Your task to perform on an android device: delete browsing data in the chrome app Image 0: 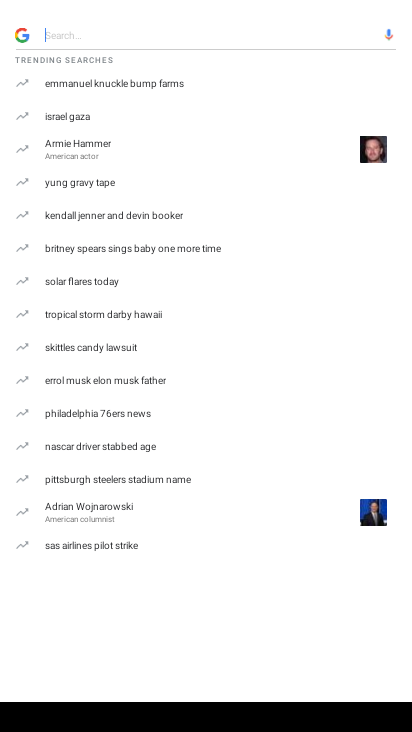
Step 0: press home button
Your task to perform on an android device: delete browsing data in the chrome app Image 1: 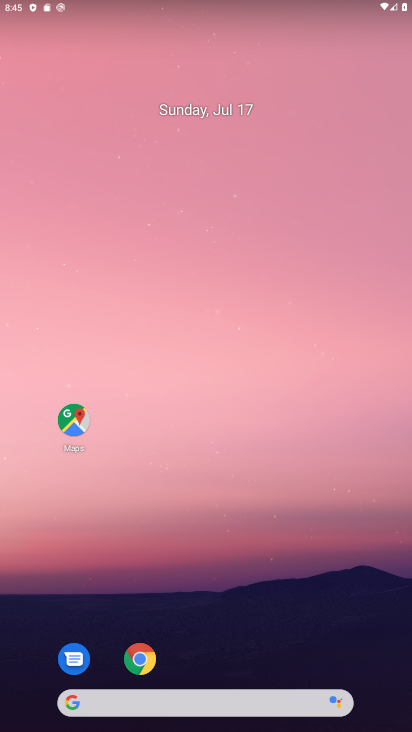
Step 1: click (146, 657)
Your task to perform on an android device: delete browsing data in the chrome app Image 2: 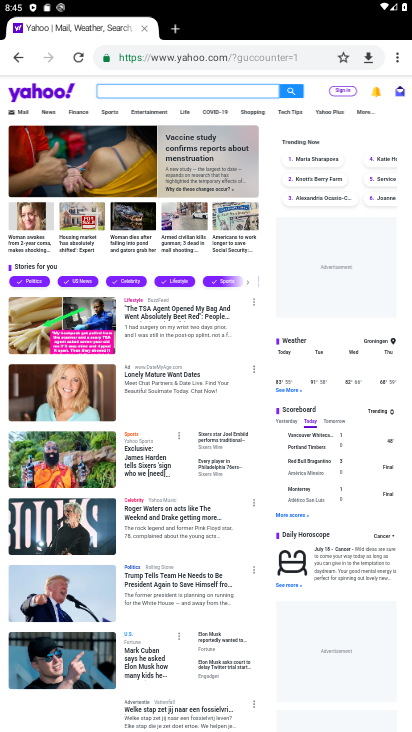
Step 2: click (397, 63)
Your task to perform on an android device: delete browsing data in the chrome app Image 3: 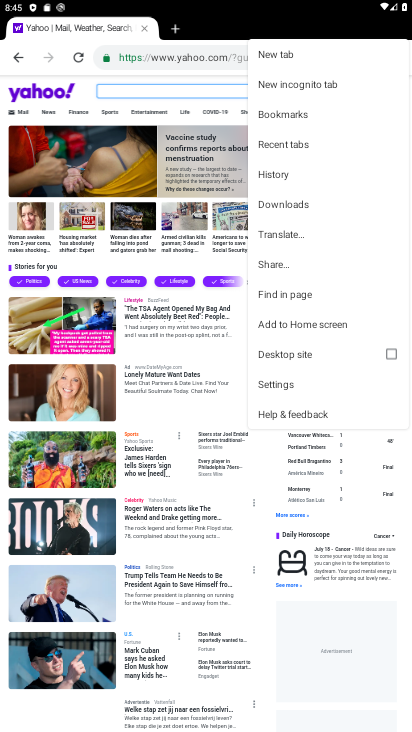
Step 3: click (272, 170)
Your task to perform on an android device: delete browsing data in the chrome app Image 4: 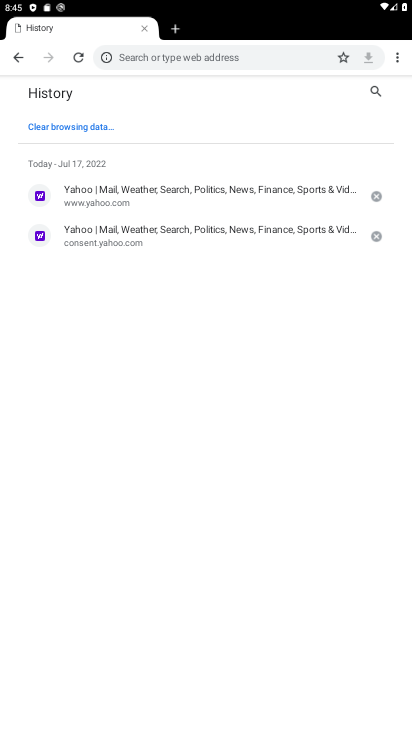
Step 4: click (65, 125)
Your task to perform on an android device: delete browsing data in the chrome app Image 5: 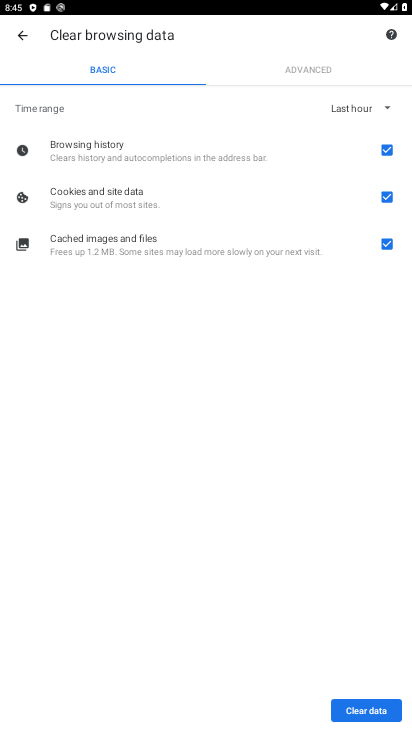
Step 5: click (384, 195)
Your task to perform on an android device: delete browsing data in the chrome app Image 6: 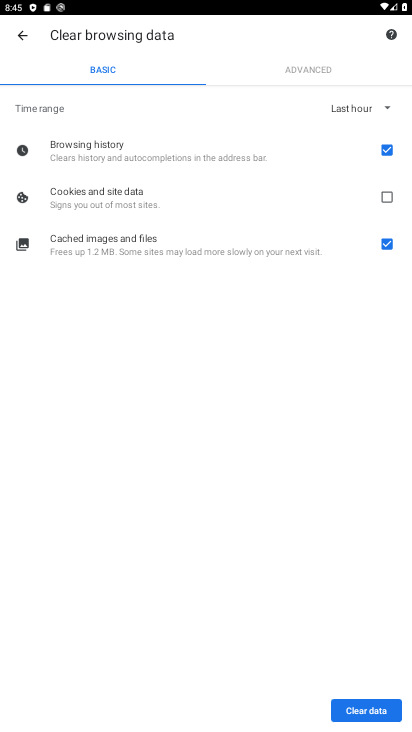
Step 6: click (389, 103)
Your task to perform on an android device: delete browsing data in the chrome app Image 7: 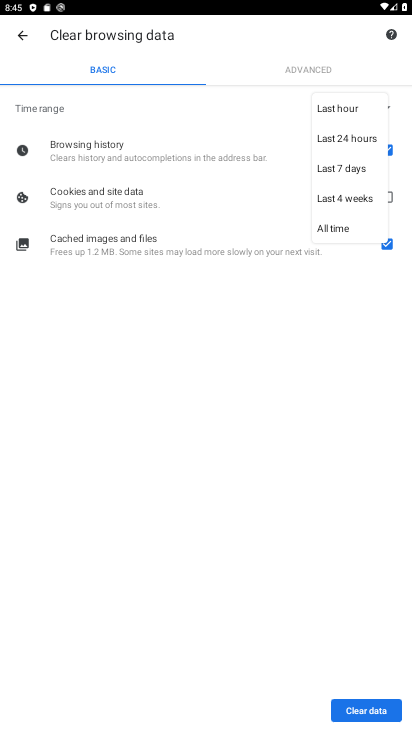
Step 7: click (347, 230)
Your task to perform on an android device: delete browsing data in the chrome app Image 8: 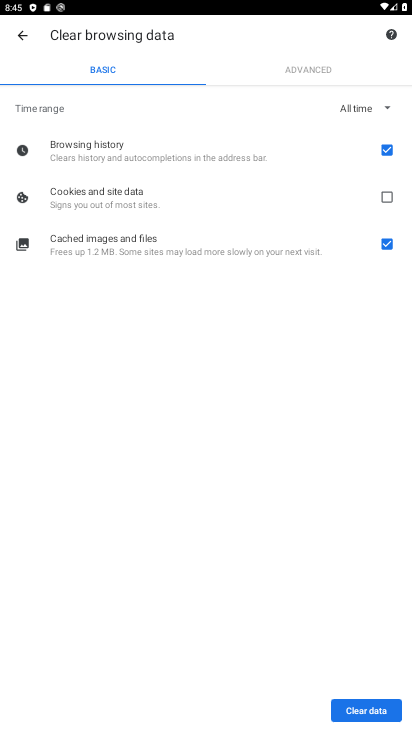
Step 8: click (386, 248)
Your task to perform on an android device: delete browsing data in the chrome app Image 9: 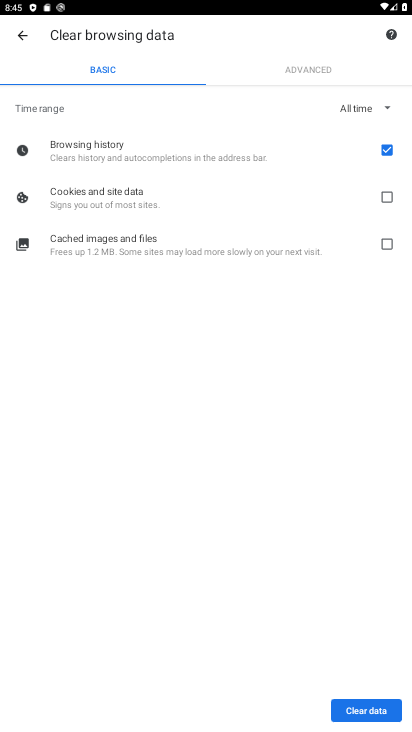
Step 9: click (370, 712)
Your task to perform on an android device: delete browsing data in the chrome app Image 10: 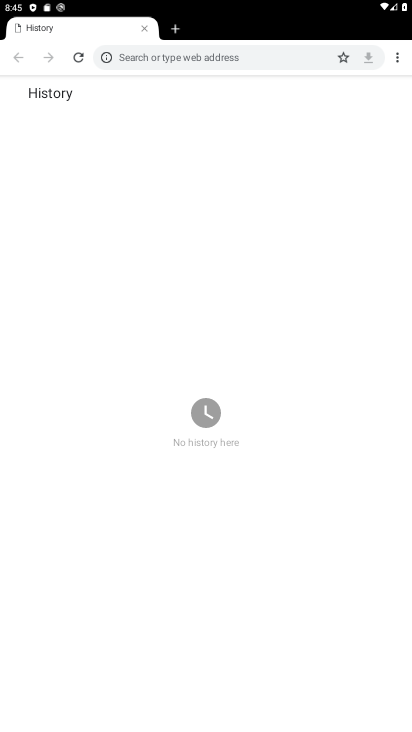
Step 10: task complete